Your task to perform on an android device: turn smart compose on in the gmail app Image 0: 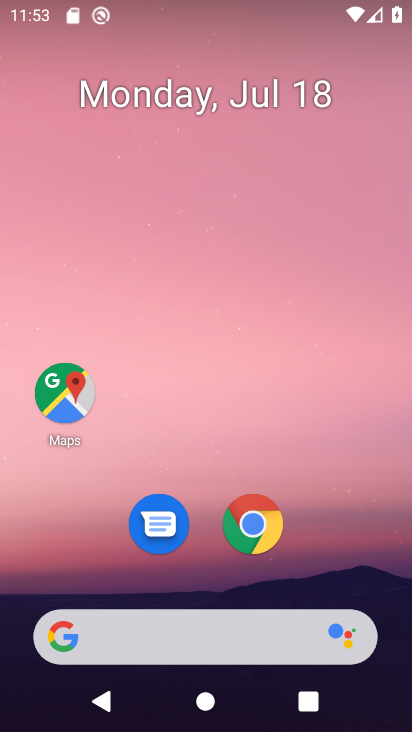
Step 0: drag from (323, 541) to (344, 30)
Your task to perform on an android device: turn smart compose on in the gmail app Image 1: 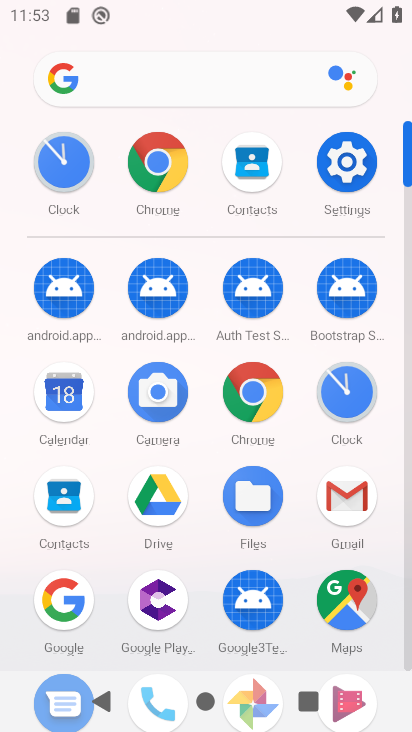
Step 1: click (341, 489)
Your task to perform on an android device: turn smart compose on in the gmail app Image 2: 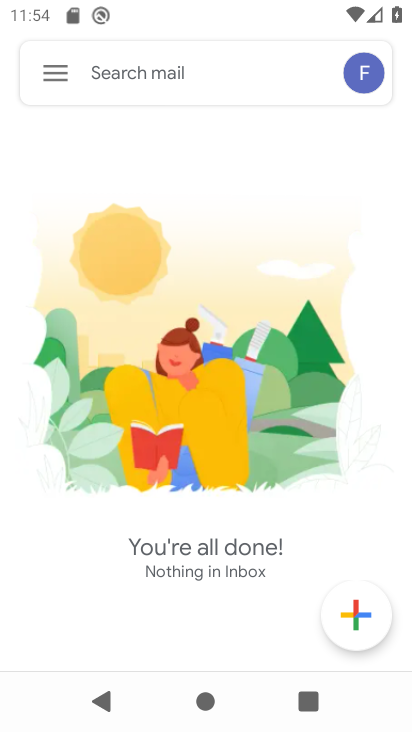
Step 2: click (56, 74)
Your task to perform on an android device: turn smart compose on in the gmail app Image 3: 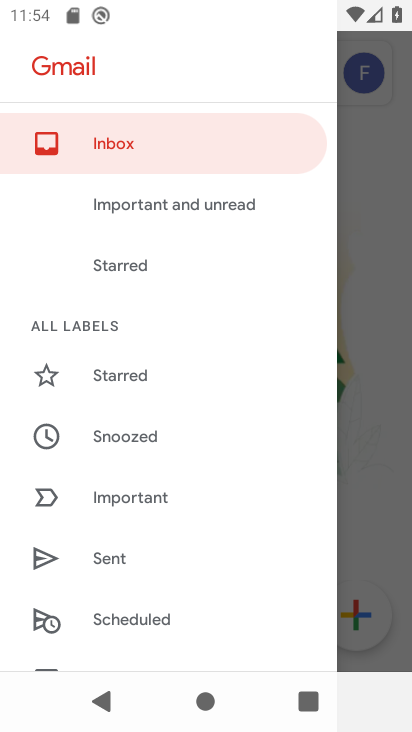
Step 3: drag from (161, 570) to (220, 131)
Your task to perform on an android device: turn smart compose on in the gmail app Image 4: 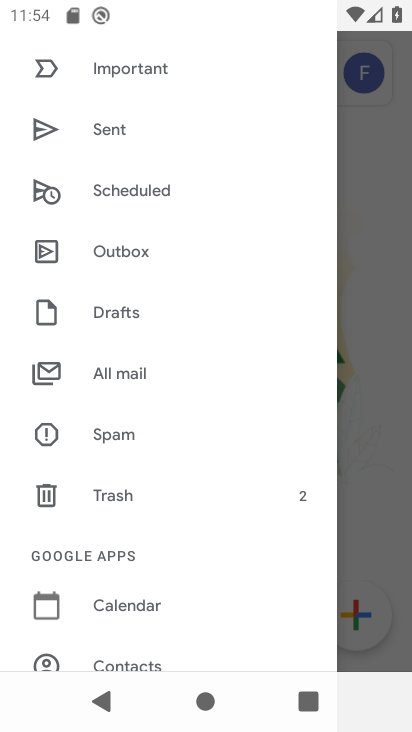
Step 4: drag from (165, 496) to (202, 183)
Your task to perform on an android device: turn smart compose on in the gmail app Image 5: 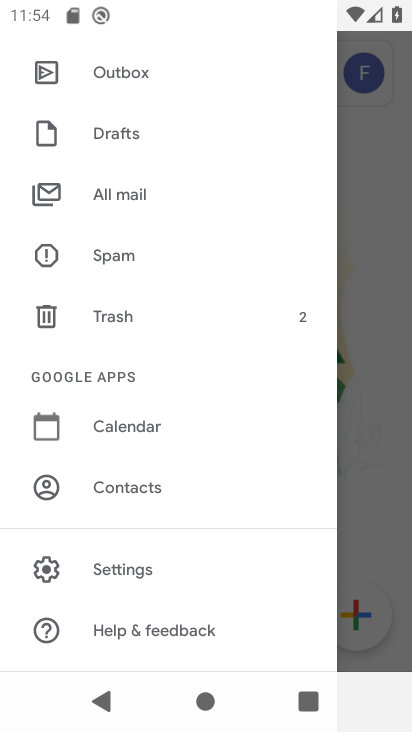
Step 5: drag from (165, 150) to (146, 566)
Your task to perform on an android device: turn smart compose on in the gmail app Image 6: 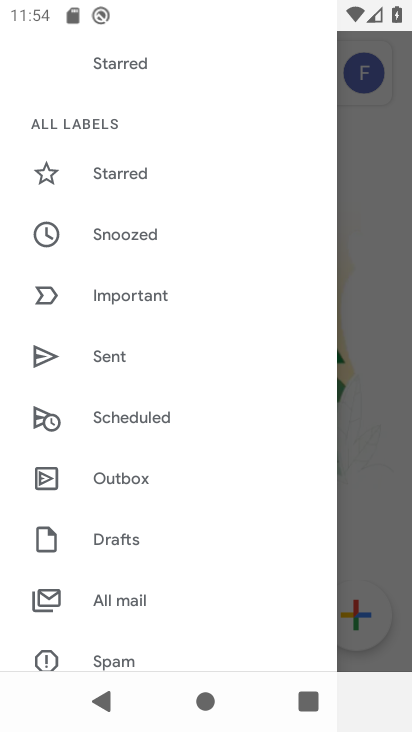
Step 6: drag from (131, 452) to (147, 119)
Your task to perform on an android device: turn smart compose on in the gmail app Image 7: 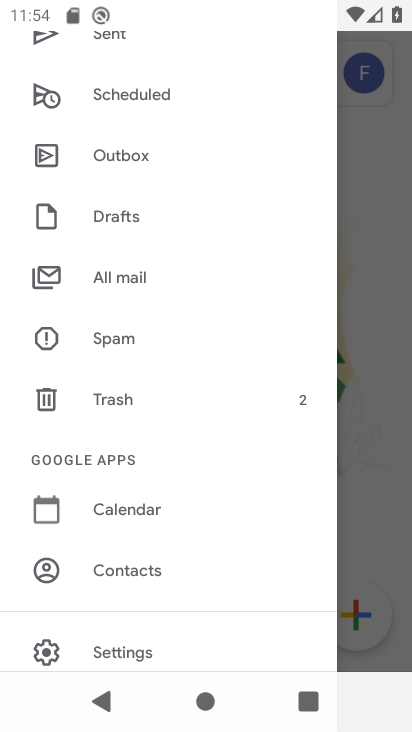
Step 7: drag from (128, 449) to (162, 267)
Your task to perform on an android device: turn smart compose on in the gmail app Image 8: 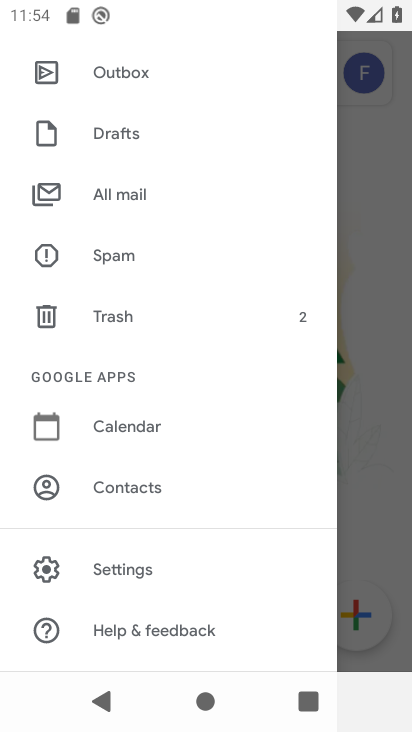
Step 8: click (131, 565)
Your task to perform on an android device: turn smart compose on in the gmail app Image 9: 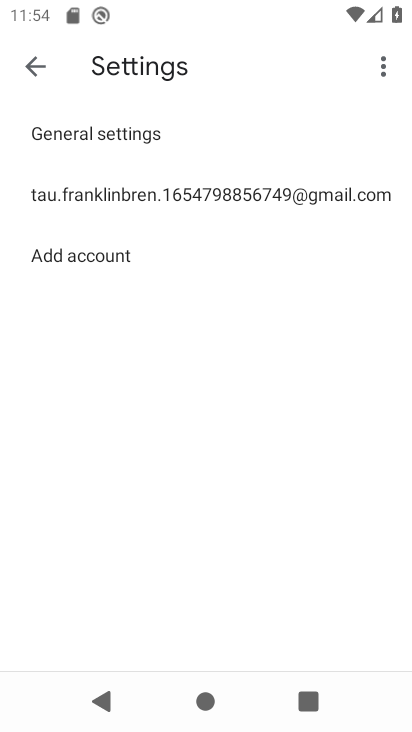
Step 9: click (261, 199)
Your task to perform on an android device: turn smart compose on in the gmail app Image 10: 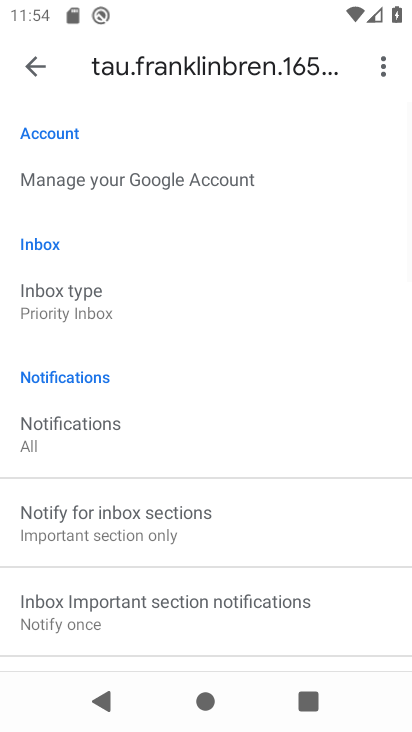
Step 10: task complete